Your task to perform on an android device: delete browsing data in the chrome app Image 0: 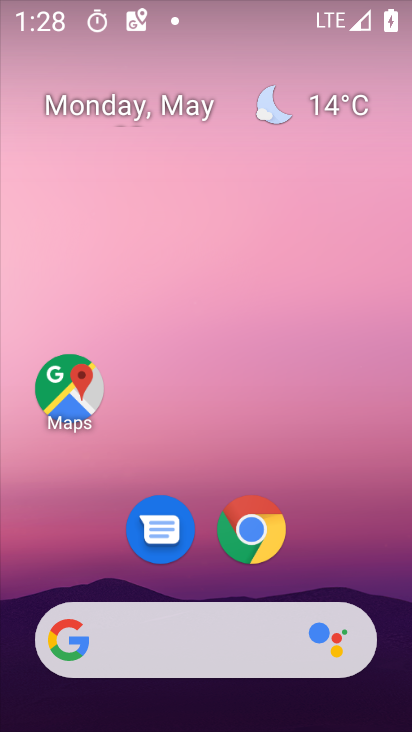
Step 0: drag from (376, 589) to (367, 241)
Your task to perform on an android device: delete browsing data in the chrome app Image 1: 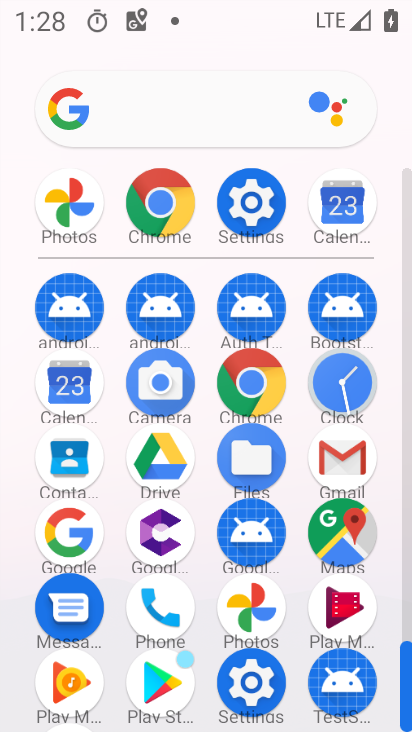
Step 1: click (252, 403)
Your task to perform on an android device: delete browsing data in the chrome app Image 2: 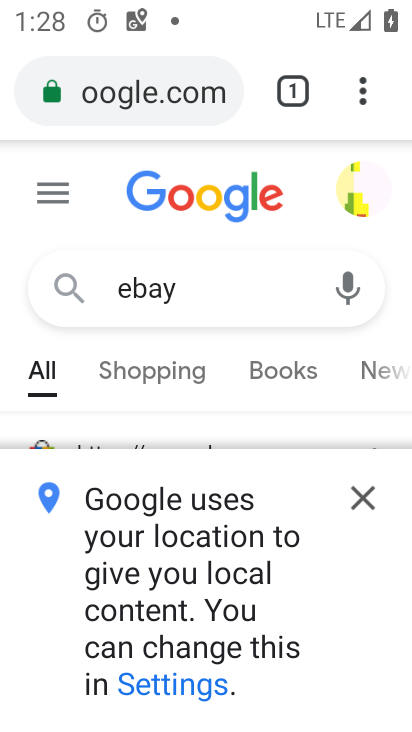
Step 2: click (364, 104)
Your task to perform on an android device: delete browsing data in the chrome app Image 3: 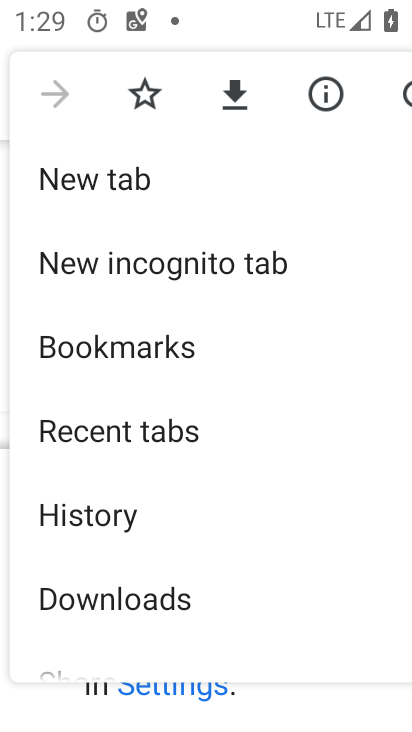
Step 3: drag from (299, 525) to (310, 391)
Your task to perform on an android device: delete browsing data in the chrome app Image 4: 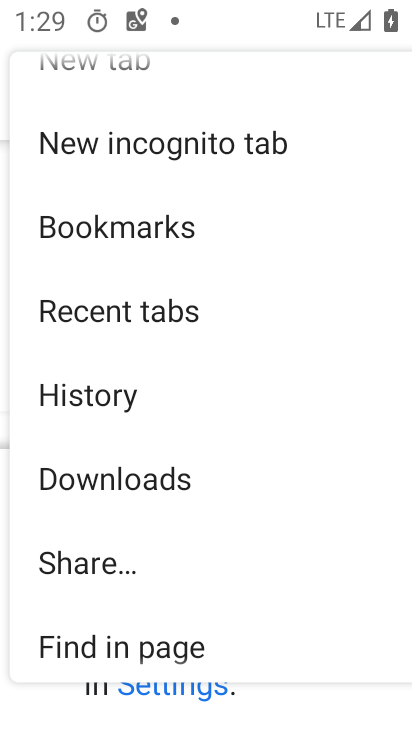
Step 4: drag from (293, 491) to (301, 398)
Your task to perform on an android device: delete browsing data in the chrome app Image 5: 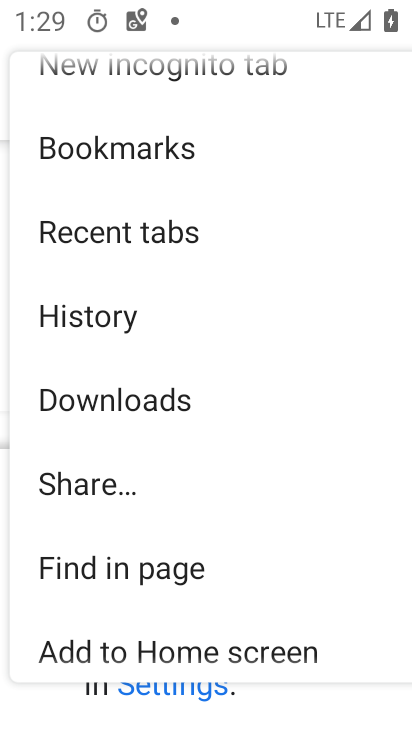
Step 5: drag from (325, 587) to (316, 445)
Your task to perform on an android device: delete browsing data in the chrome app Image 6: 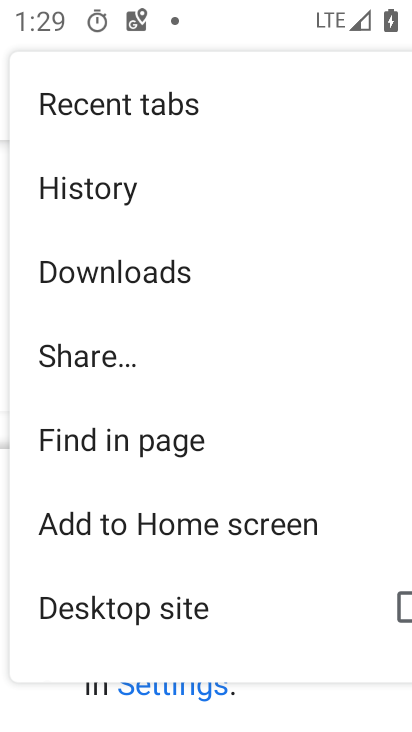
Step 6: drag from (321, 624) to (317, 488)
Your task to perform on an android device: delete browsing data in the chrome app Image 7: 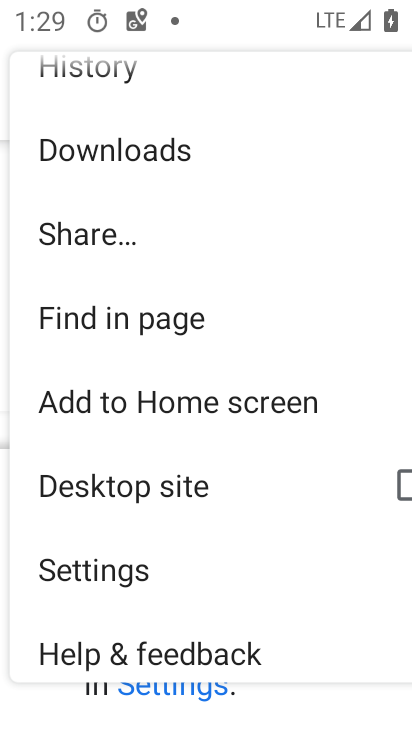
Step 7: drag from (316, 616) to (318, 493)
Your task to perform on an android device: delete browsing data in the chrome app Image 8: 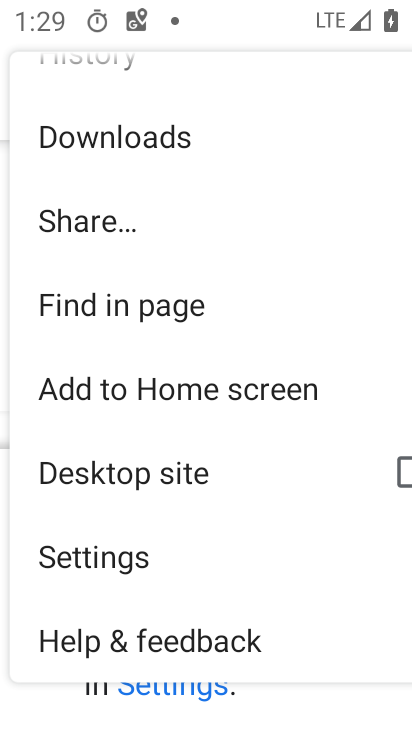
Step 8: drag from (326, 601) to (344, 468)
Your task to perform on an android device: delete browsing data in the chrome app Image 9: 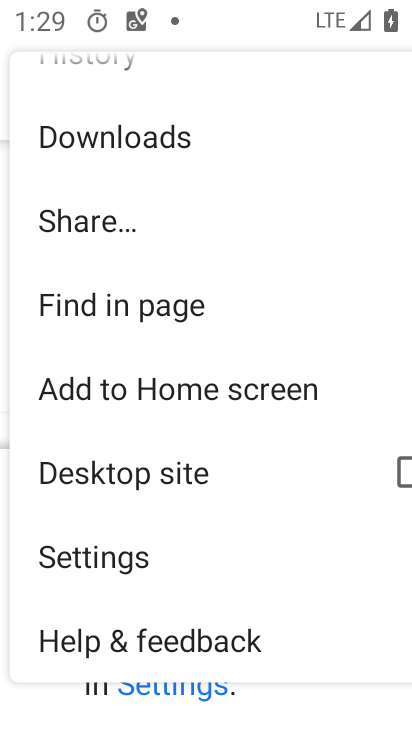
Step 9: click (120, 561)
Your task to perform on an android device: delete browsing data in the chrome app Image 10: 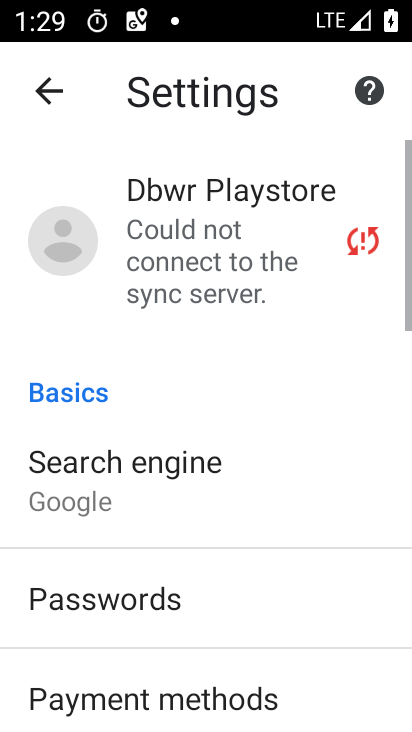
Step 10: drag from (325, 598) to (336, 482)
Your task to perform on an android device: delete browsing data in the chrome app Image 11: 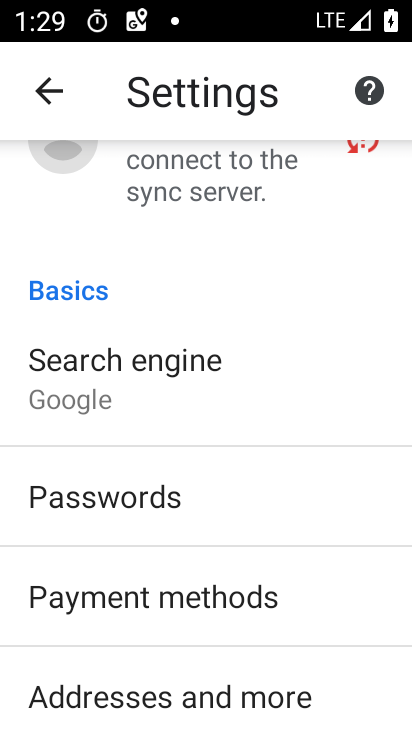
Step 11: drag from (323, 549) to (315, 408)
Your task to perform on an android device: delete browsing data in the chrome app Image 12: 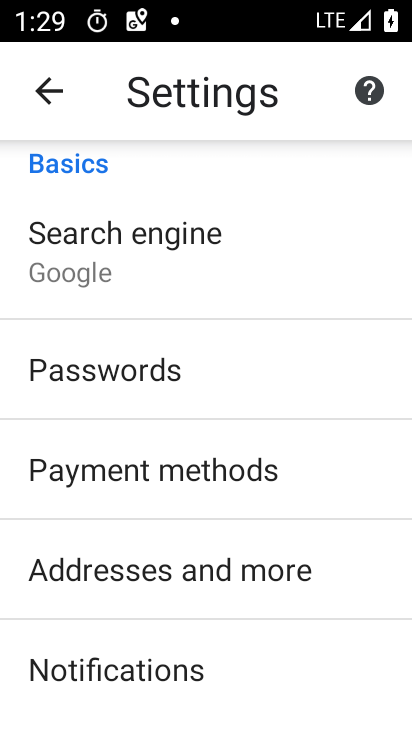
Step 12: drag from (314, 620) to (326, 500)
Your task to perform on an android device: delete browsing data in the chrome app Image 13: 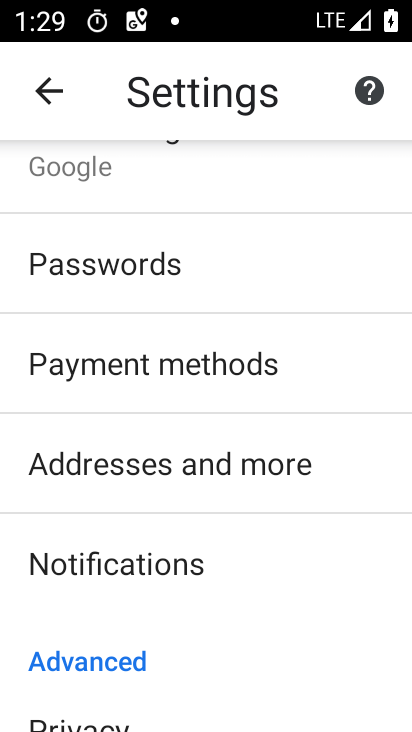
Step 13: drag from (302, 644) to (291, 527)
Your task to perform on an android device: delete browsing data in the chrome app Image 14: 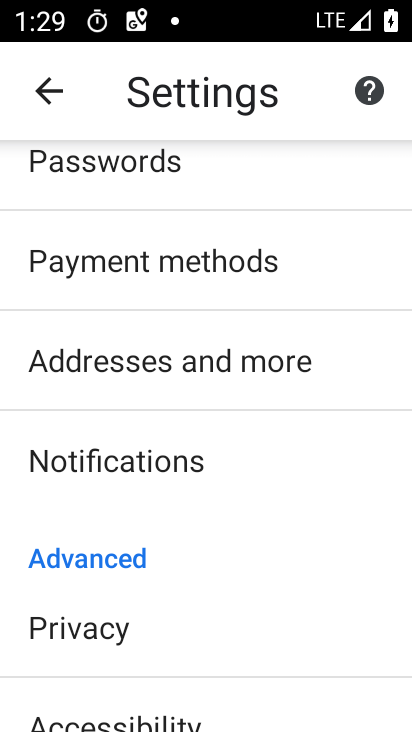
Step 14: drag from (318, 642) to (312, 570)
Your task to perform on an android device: delete browsing data in the chrome app Image 15: 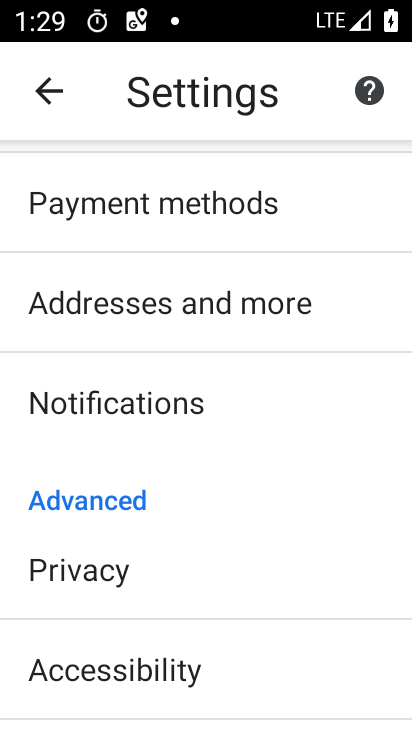
Step 15: drag from (308, 660) to (324, 567)
Your task to perform on an android device: delete browsing data in the chrome app Image 16: 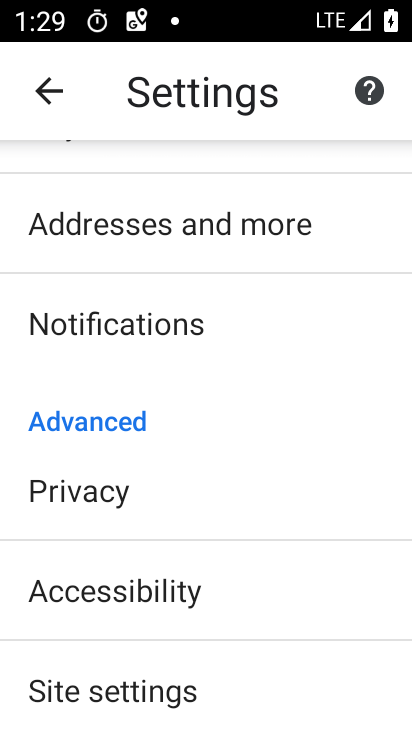
Step 16: drag from (301, 666) to (297, 536)
Your task to perform on an android device: delete browsing data in the chrome app Image 17: 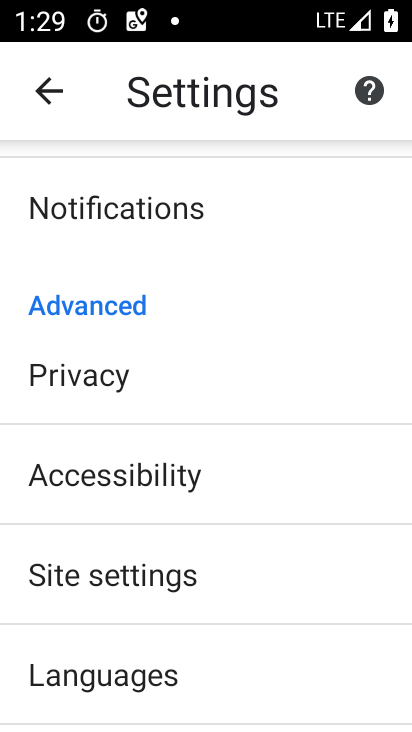
Step 17: click (237, 386)
Your task to perform on an android device: delete browsing data in the chrome app Image 18: 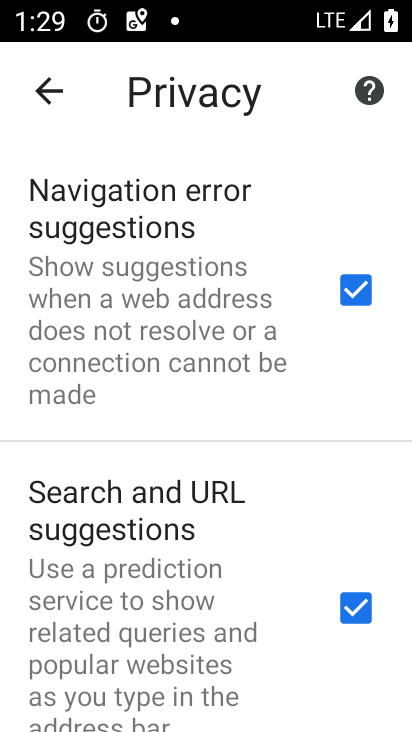
Step 18: drag from (285, 581) to (299, 465)
Your task to perform on an android device: delete browsing data in the chrome app Image 19: 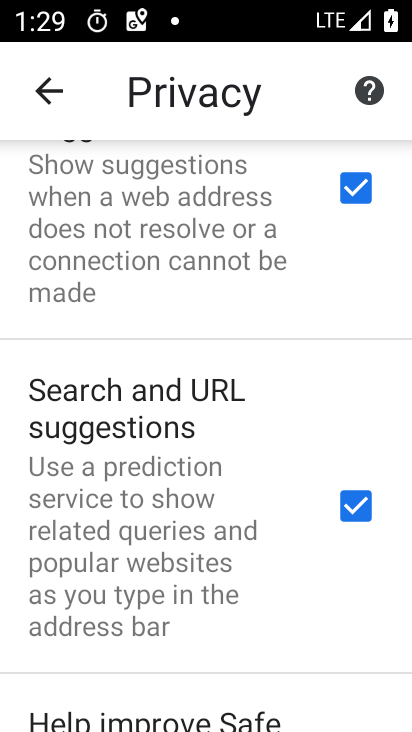
Step 19: drag from (294, 639) to (279, 462)
Your task to perform on an android device: delete browsing data in the chrome app Image 20: 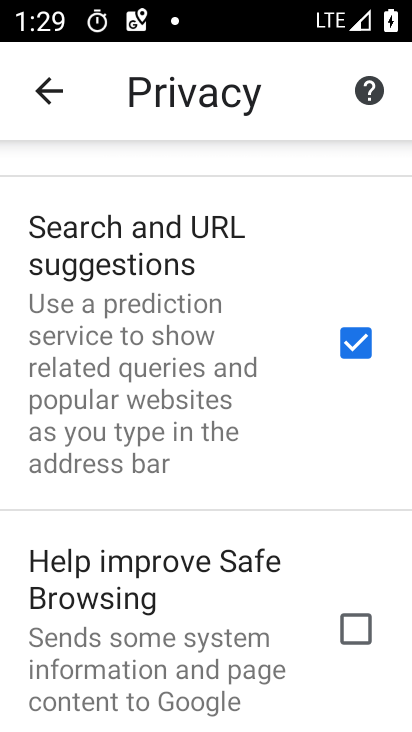
Step 20: drag from (294, 658) to (286, 514)
Your task to perform on an android device: delete browsing data in the chrome app Image 21: 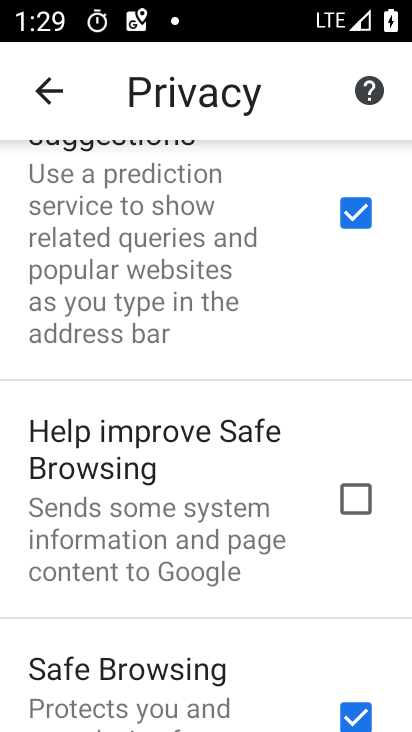
Step 21: drag from (300, 665) to (293, 483)
Your task to perform on an android device: delete browsing data in the chrome app Image 22: 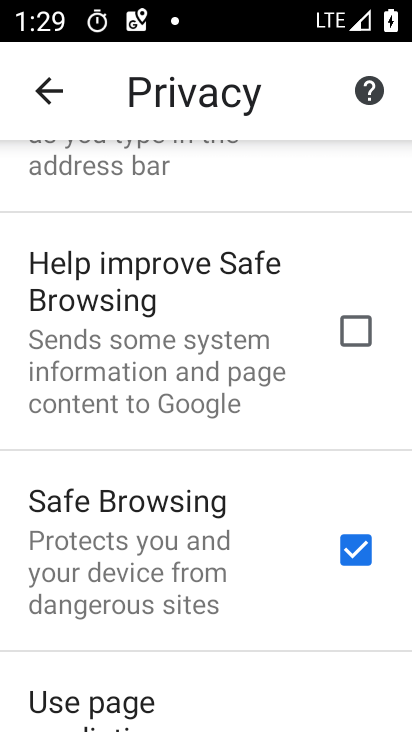
Step 22: drag from (264, 655) to (272, 527)
Your task to perform on an android device: delete browsing data in the chrome app Image 23: 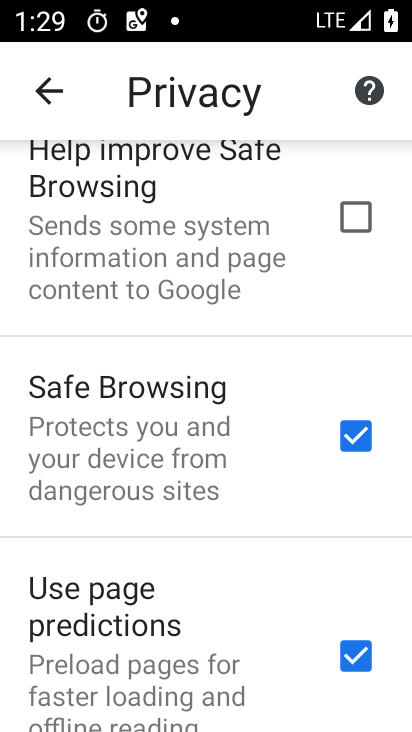
Step 23: drag from (276, 666) to (273, 539)
Your task to perform on an android device: delete browsing data in the chrome app Image 24: 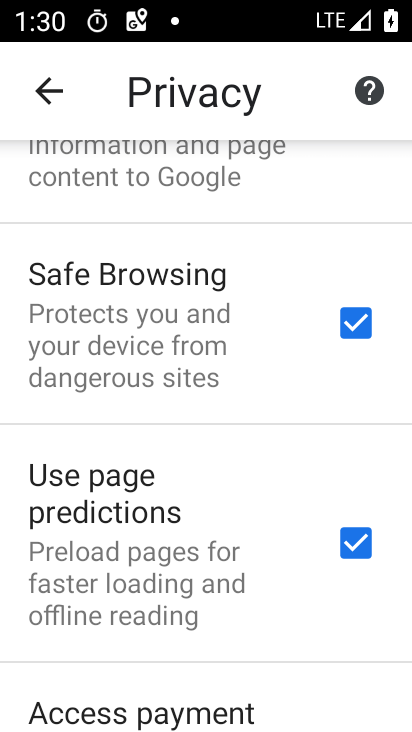
Step 24: drag from (274, 679) to (281, 524)
Your task to perform on an android device: delete browsing data in the chrome app Image 25: 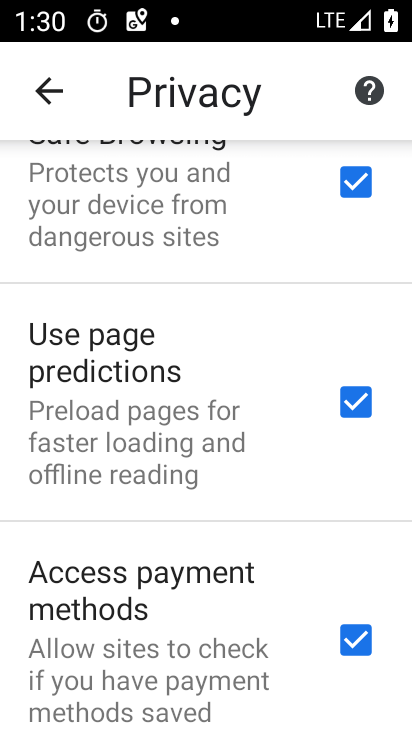
Step 25: drag from (297, 688) to (296, 552)
Your task to perform on an android device: delete browsing data in the chrome app Image 26: 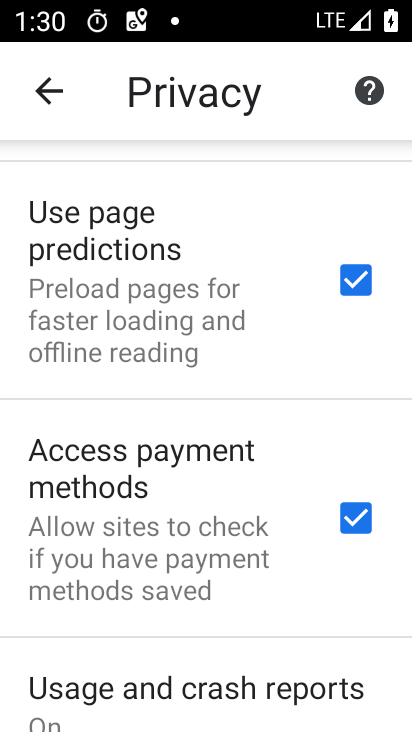
Step 26: drag from (277, 683) to (292, 529)
Your task to perform on an android device: delete browsing data in the chrome app Image 27: 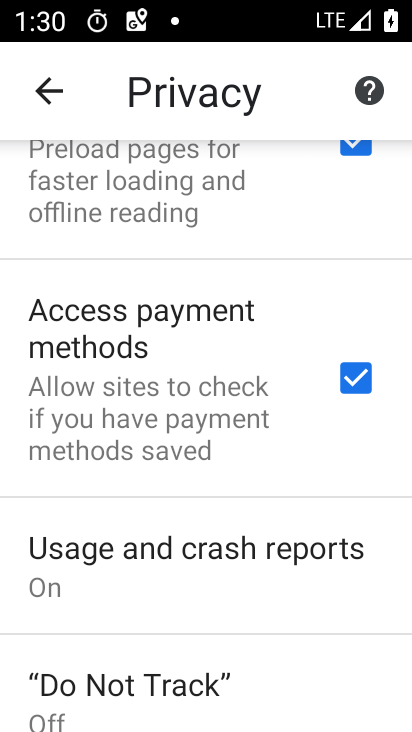
Step 27: drag from (291, 687) to (300, 557)
Your task to perform on an android device: delete browsing data in the chrome app Image 28: 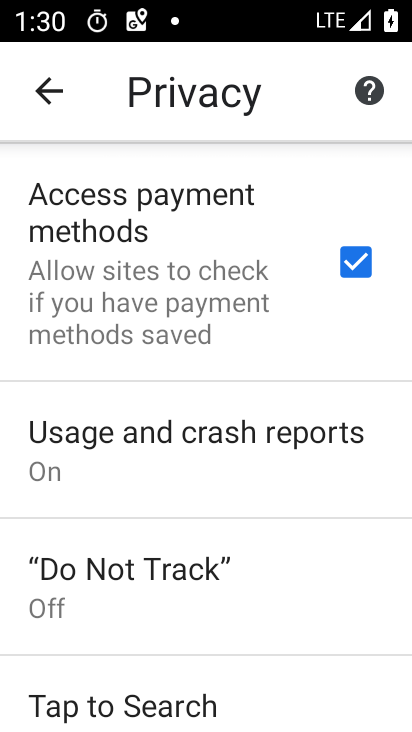
Step 28: drag from (326, 662) to (332, 383)
Your task to perform on an android device: delete browsing data in the chrome app Image 29: 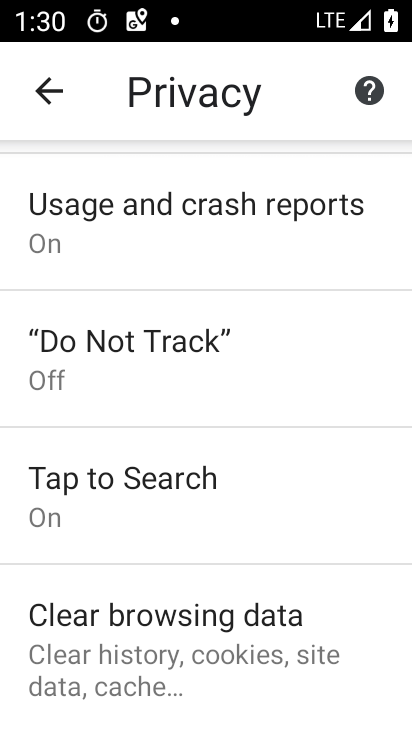
Step 29: click (249, 638)
Your task to perform on an android device: delete browsing data in the chrome app Image 30: 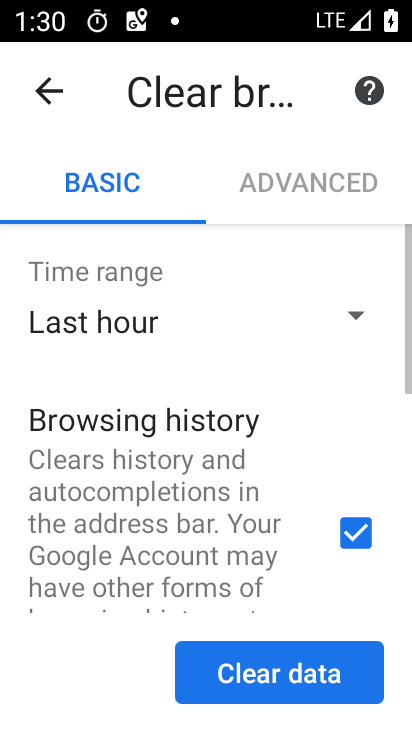
Step 30: click (260, 674)
Your task to perform on an android device: delete browsing data in the chrome app Image 31: 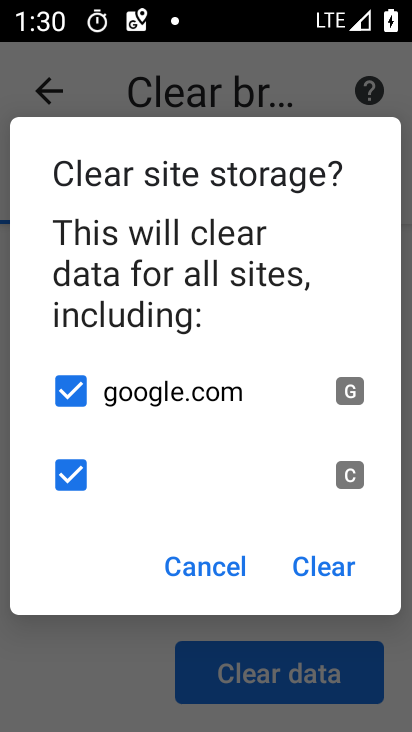
Step 31: click (325, 552)
Your task to perform on an android device: delete browsing data in the chrome app Image 32: 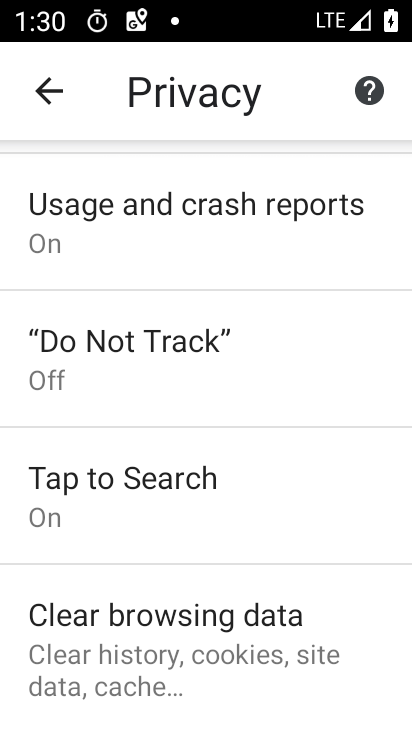
Step 32: task complete